Your task to perform on an android device: Open calendar and show me the fourth week of next month Image 0: 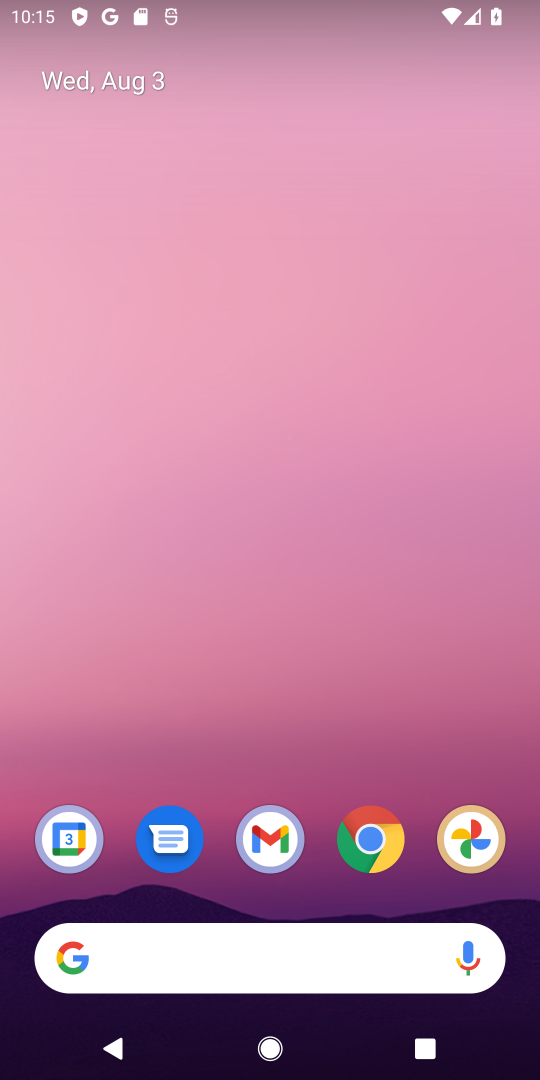
Step 0: drag from (232, 893) to (289, 2)
Your task to perform on an android device: Open calendar and show me the fourth week of next month Image 1: 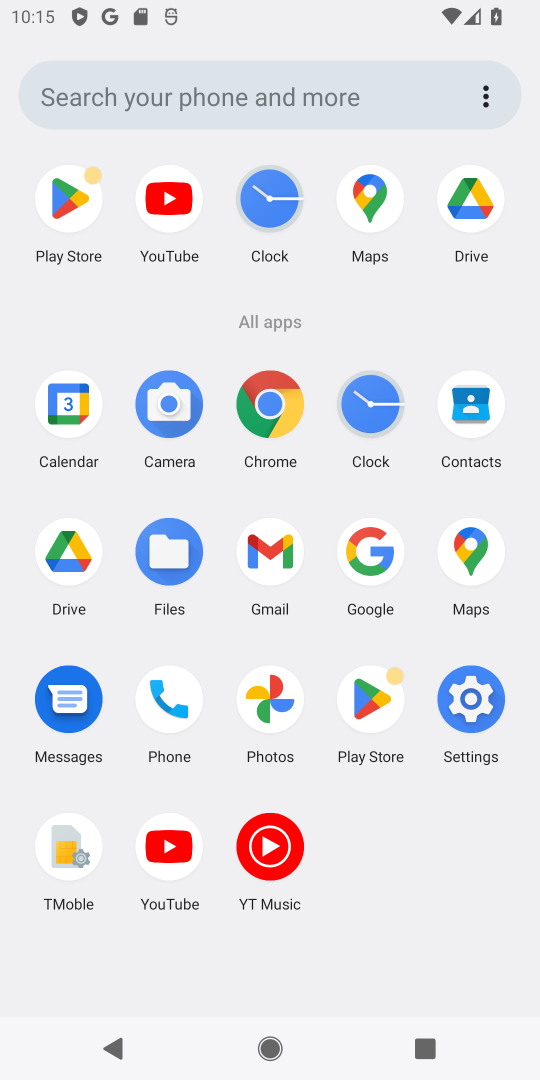
Step 1: drag from (317, 826) to (262, 16)
Your task to perform on an android device: Open calendar and show me the fourth week of next month Image 2: 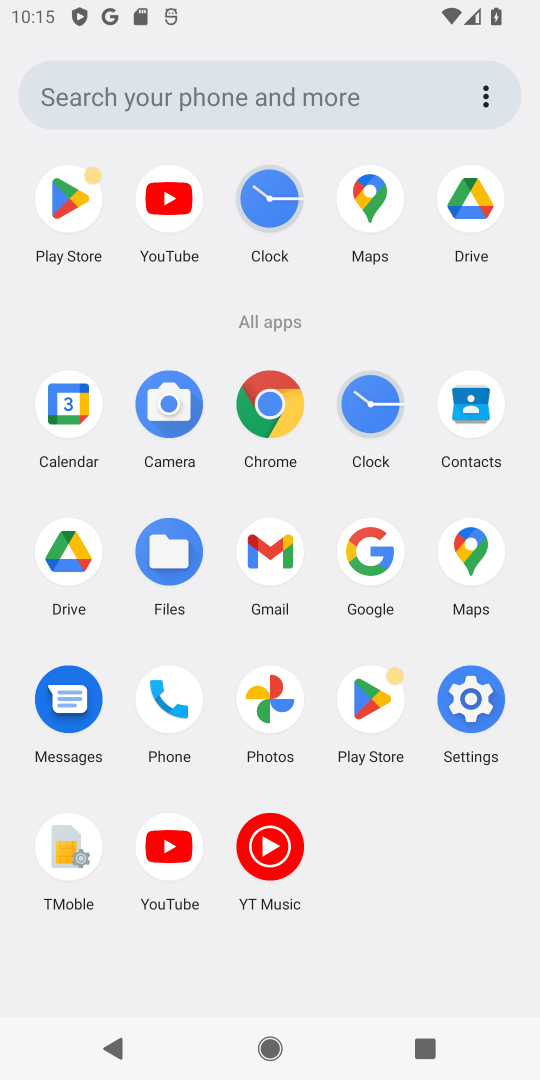
Step 2: drag from (231, 892) to (271, 196)
Your task to perform on an android device: Open calendar and show me the fourth week of next month Image 3: 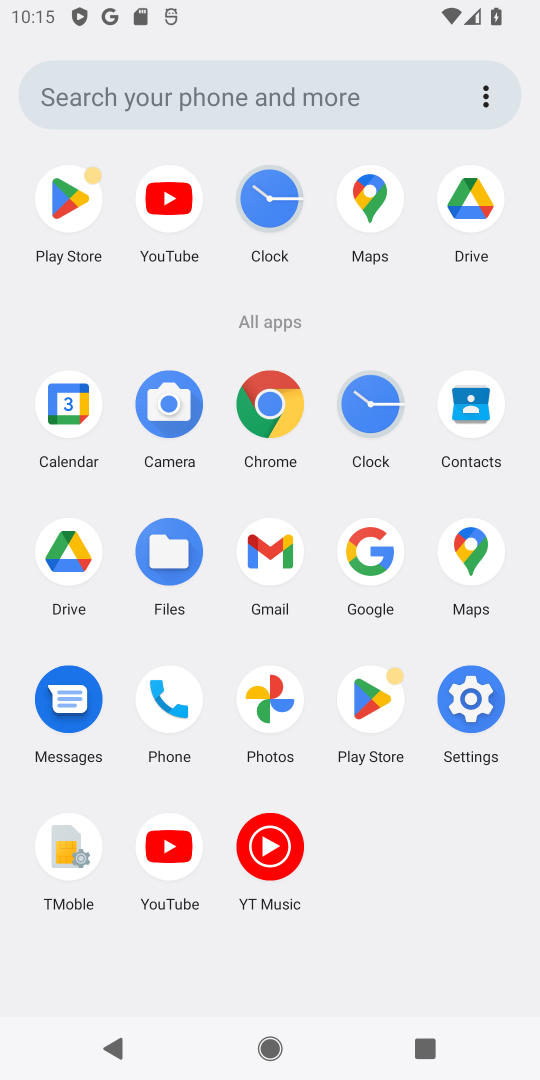
Step 3: click (67, 421)
Your task to perform on an android device: Open calendar and show me the fourth week of next month Image 4: 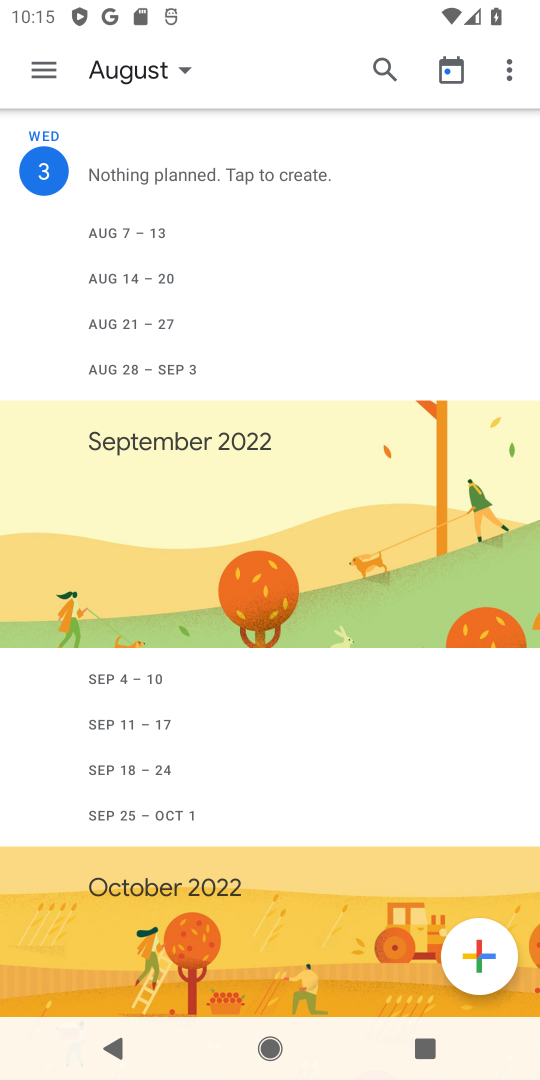
Step 4: click (152, 85)
Your task to perform on an android device: Open calendar and show me the fourth week of next month Image 5: 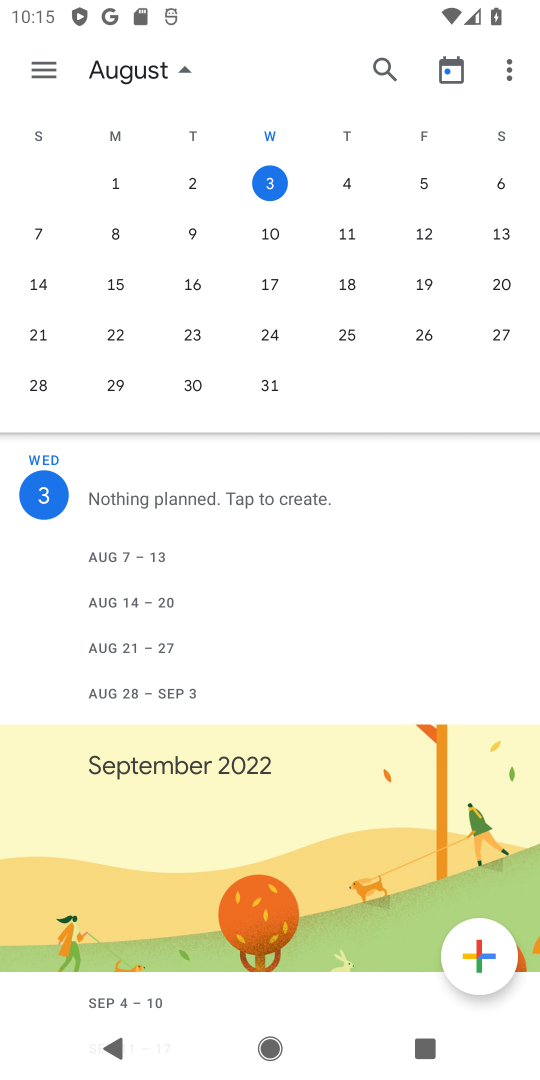
Step 5: drag from (402, 271) to (28, 233)
Your task to perform on an android device: Open calendar and show me the fourth week of next month Image 6: 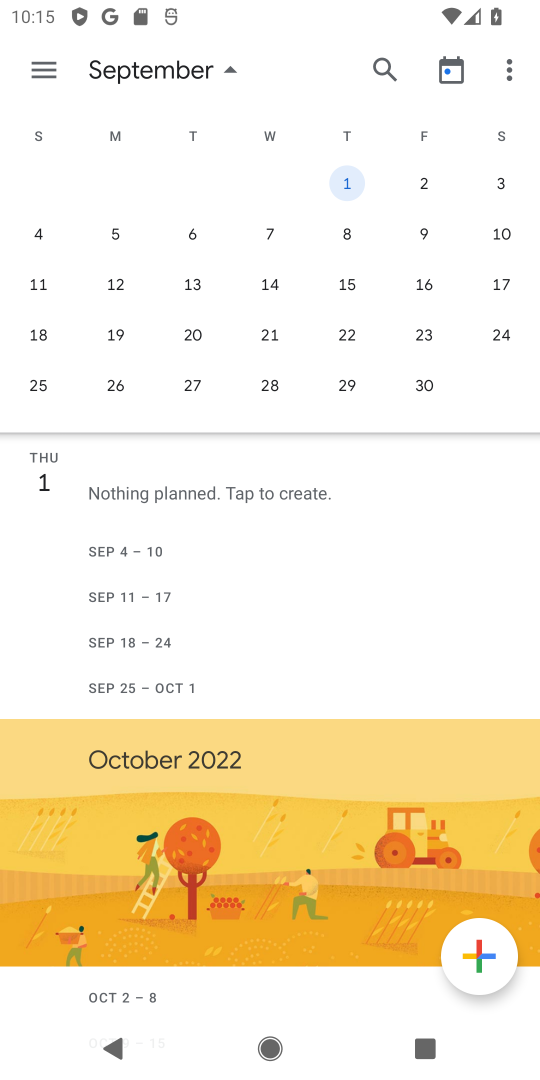
Step 6: click (36, 71)
Your task to perform on an android device: Open calendar and show me the fourth week of next month Image 7: 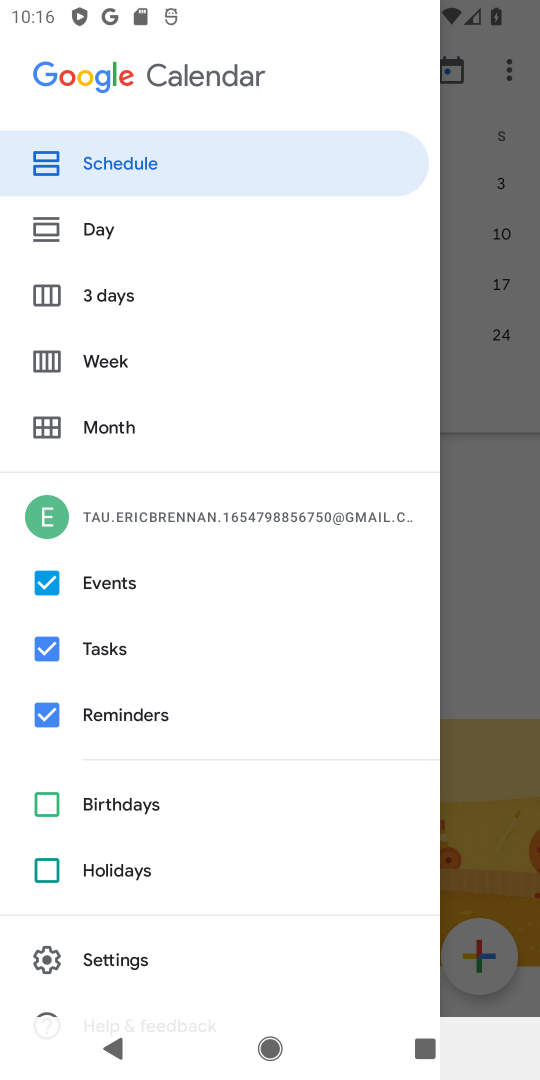
Step 7: click (95, 366)
Your task to perform on an android device: Open calendar and show me the fourth week of next month Image 8: 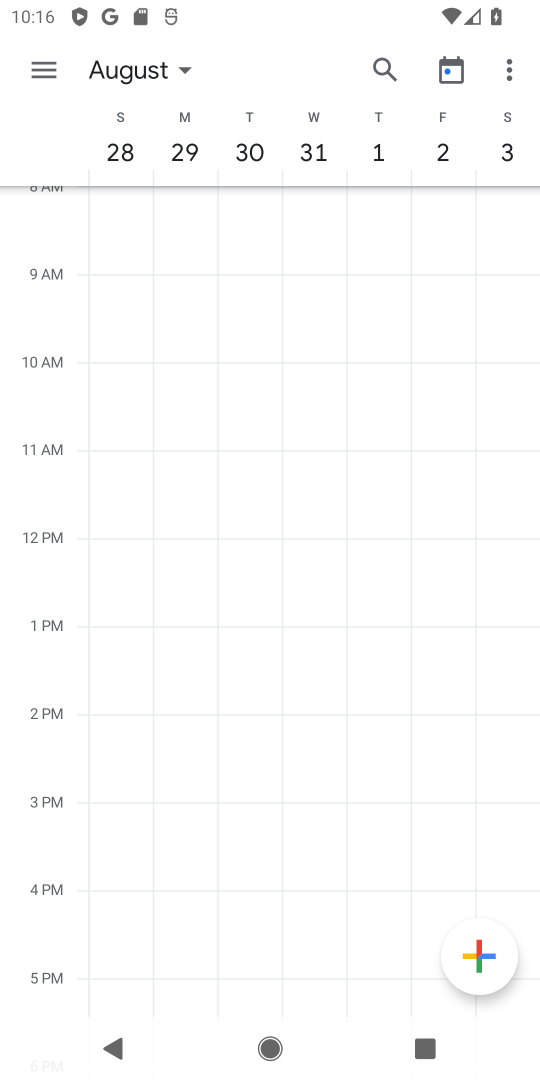
Step 8: task complete